Your task to perform on an android device: manage bookmarks in the chrome app Image 0: 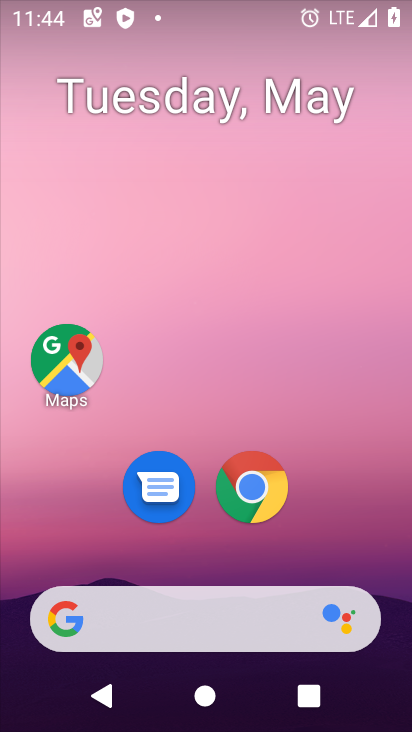
Step 0: drag from (209, 525) to (264, 164)
Your task to perform on an android device: manage bookmarks in the chrome app Image 1: 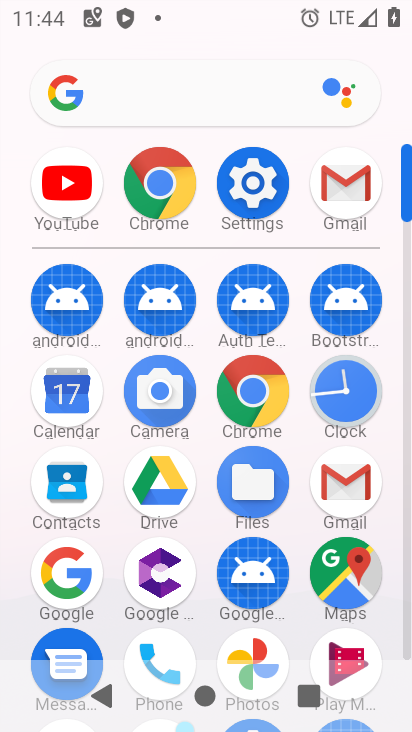
Step 1: click (252, 397)
Your task to perform on an android device: manage bookmarks in the chrome app Image 2: 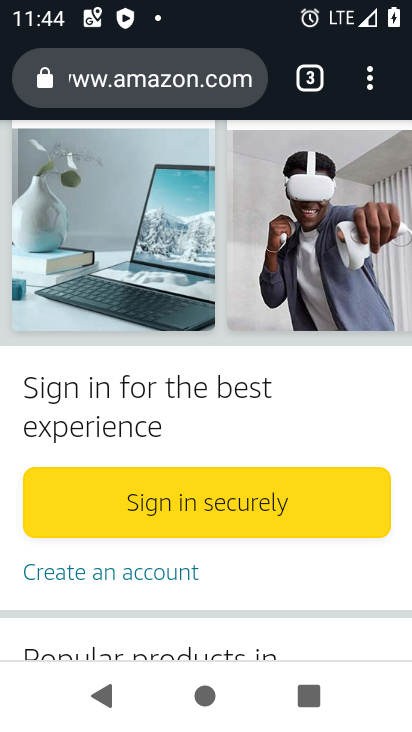
Step 2: click (381, 78)
Your task to perform on an android device: manage bookmarks in the chrome app Image 3: 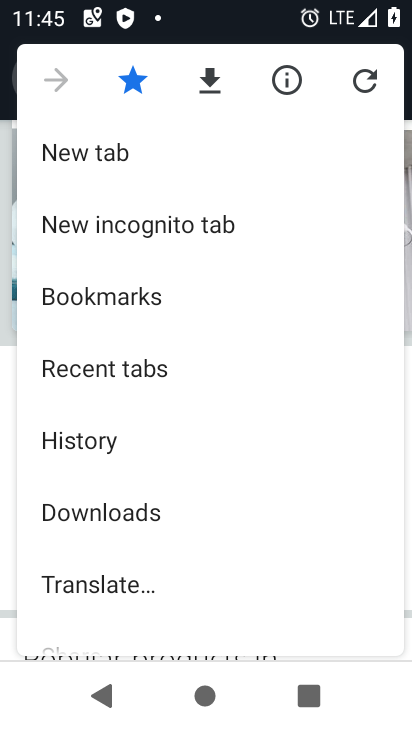
Step 3: click (109, 304)
Your task to perform on an android device: manage bookmarks in the chrome app Image 4: 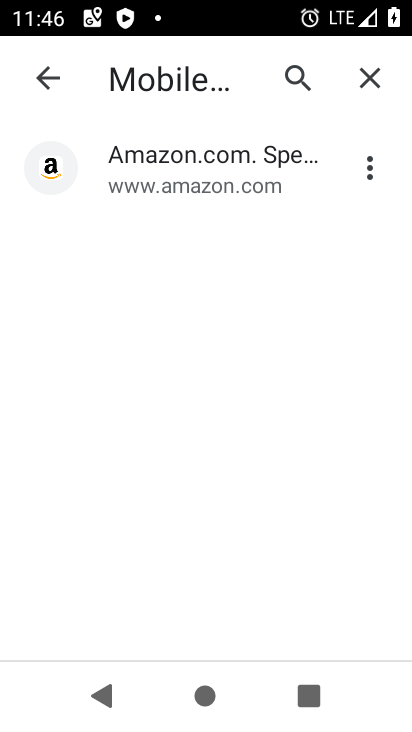
Step 4: click (370, 173)
Your task to perform on an android device: manage bookmarks in the chrome app Image 5: 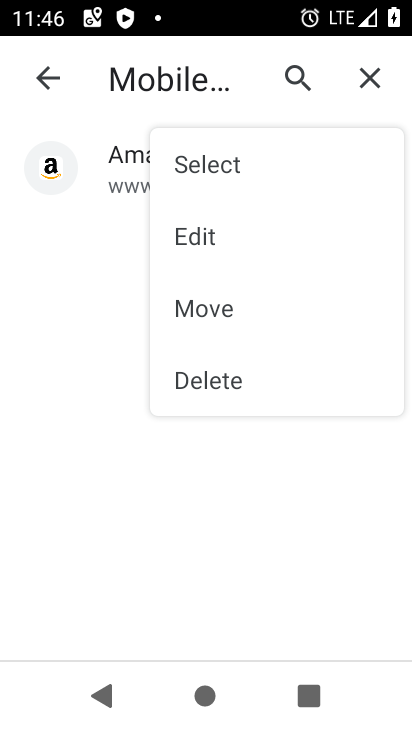
Step 5: click (263, 307)
Your task to perform on an android device: manage bookmarks in the chrome app Image 6: 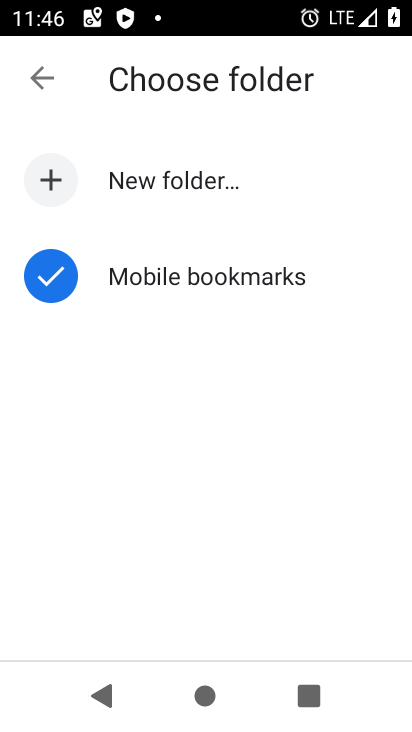
Step 6: task complete